Your task to perform on an android device: Search for Italian restaurants on Maps Image 0: 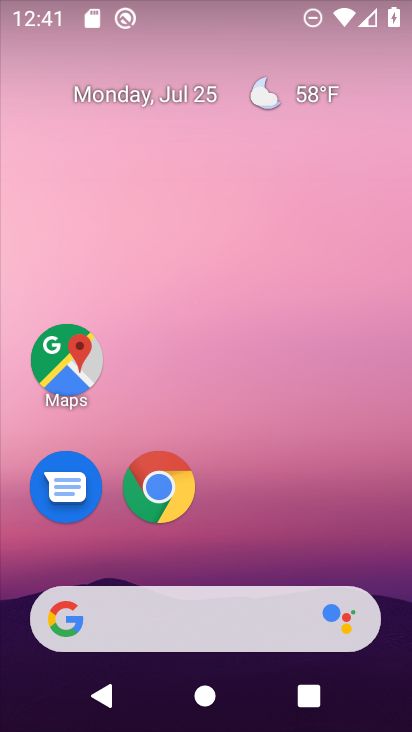
Step 0: click (77, 360)
Your task to perform on an android device: Search for Italian restaurants on Maps Image 1: 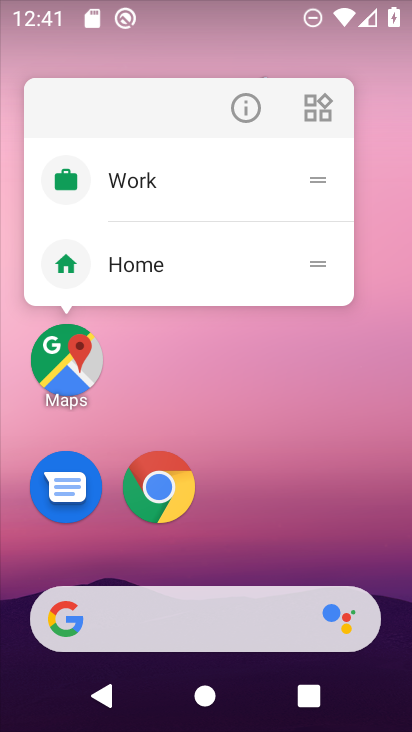
Step 1: click (68, 342)
Your task to perform on an android device: Search for Italian restaurants on Maps Image 2: 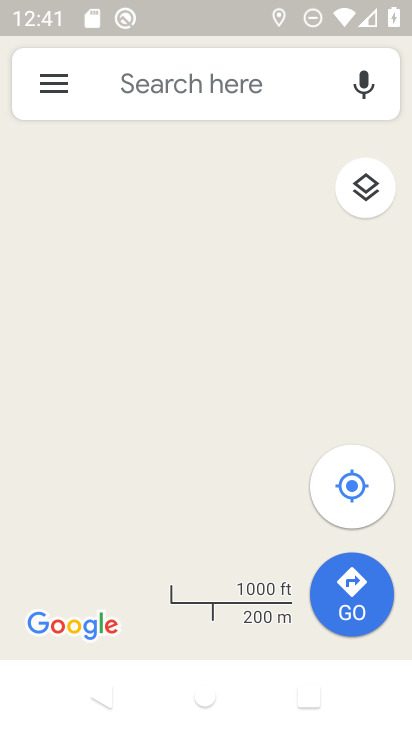
Step 2: click (195, 89)
Your task to perform on an android device: Search for Italian restaurants on Maps Image 3: 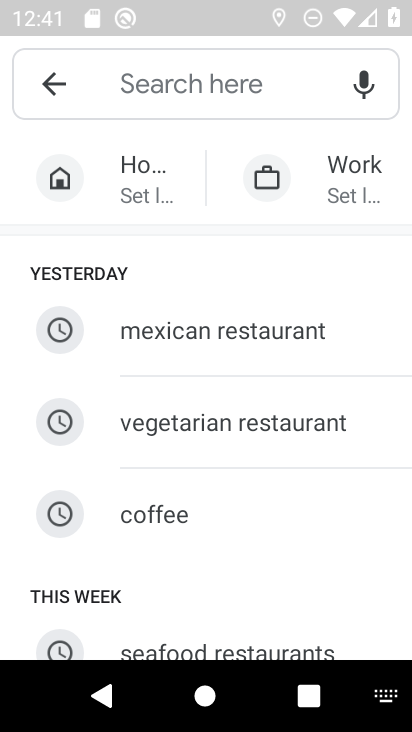
Step 3: drag from (174, 616) to (249, 31)
Your task to perform on an android device: Search for Italian restaurants on Maps Image 4: 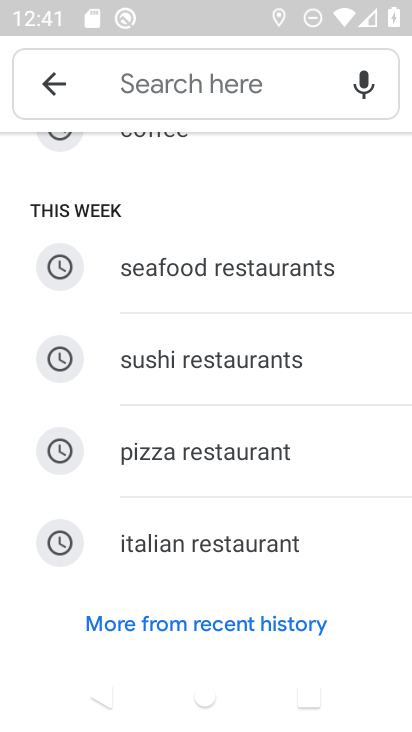
Step 4: click (152, 543)
Your task to perform on an android device: Search for Italian restaurants on Maps Image 5: 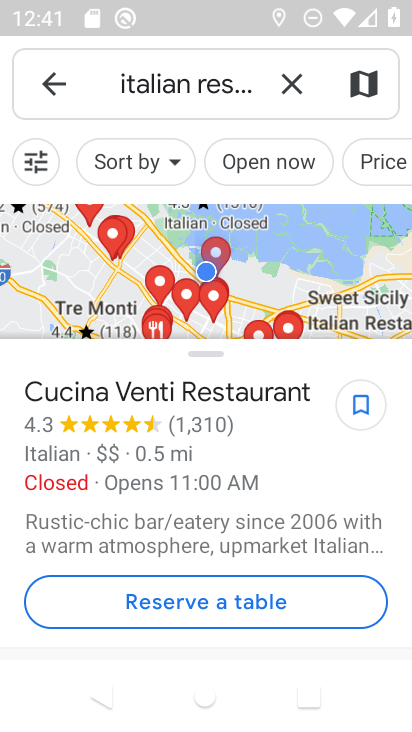
Step 5: task complete